Your task to perform on an android device: Find coffee shops on Maps Image 0: 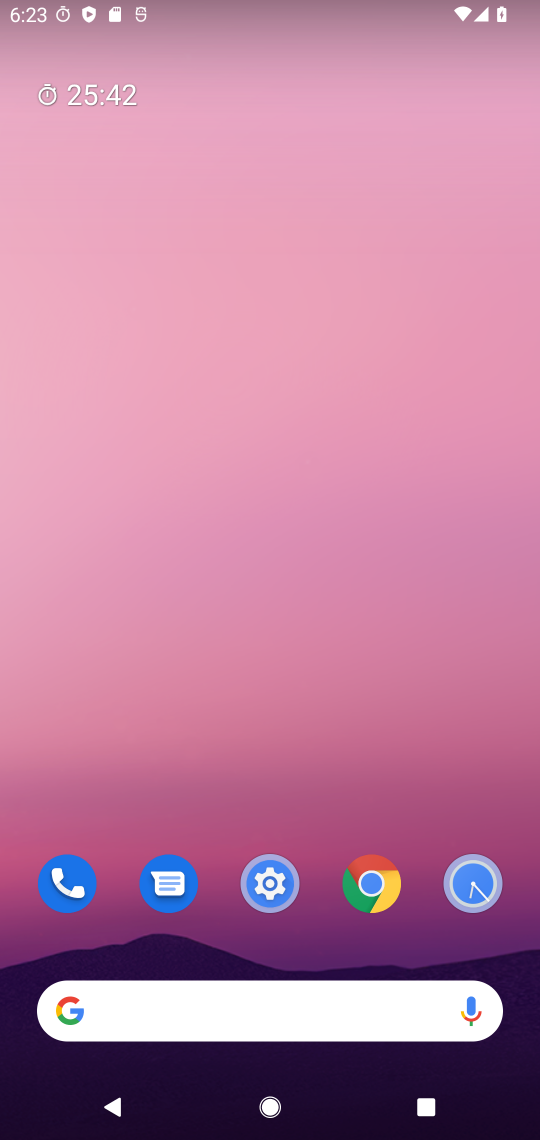
Step 0: drag from (254, 766) to (242, 206)
Your task to perform on an android device: Find coffee shops on Maps Image 1: 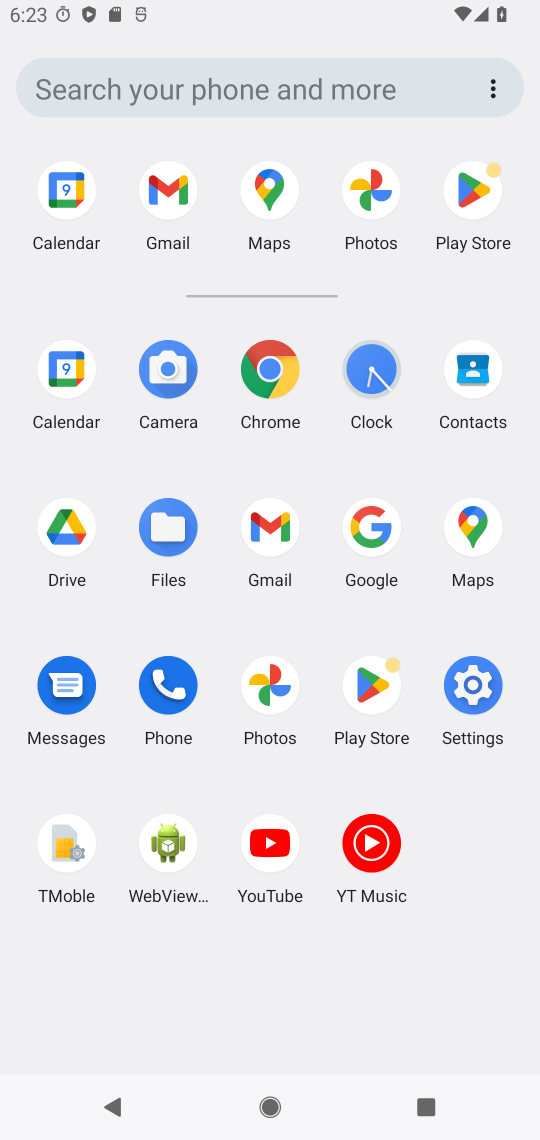
Step 1: click (279, 196)
Your task to perform on an android device: Find coffee shops on Maps Image 2: 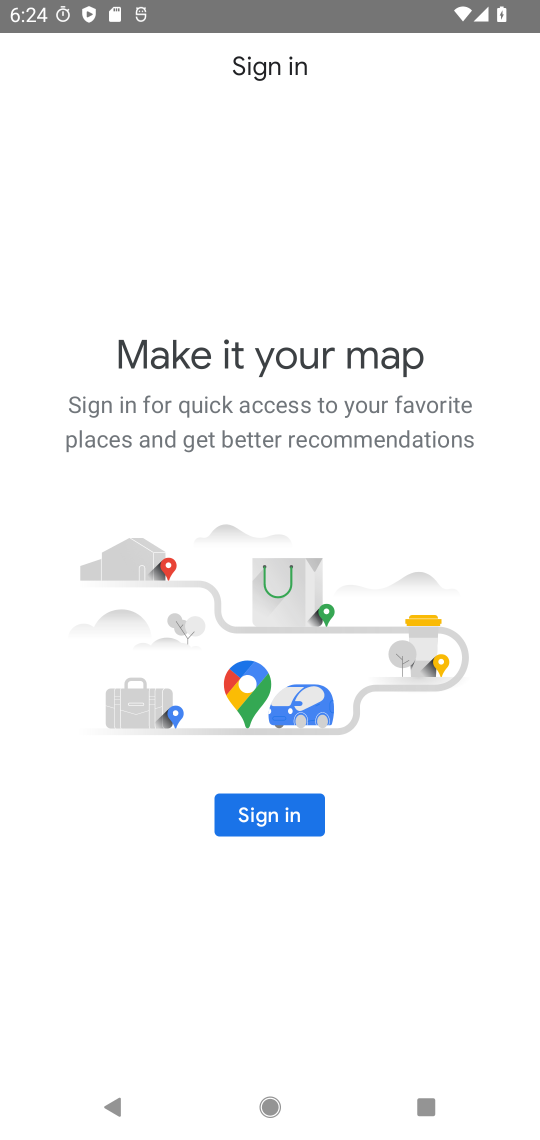
Step 2: press home button
Your task to perform on an android device: Find coffee shops on Maps Image 3: 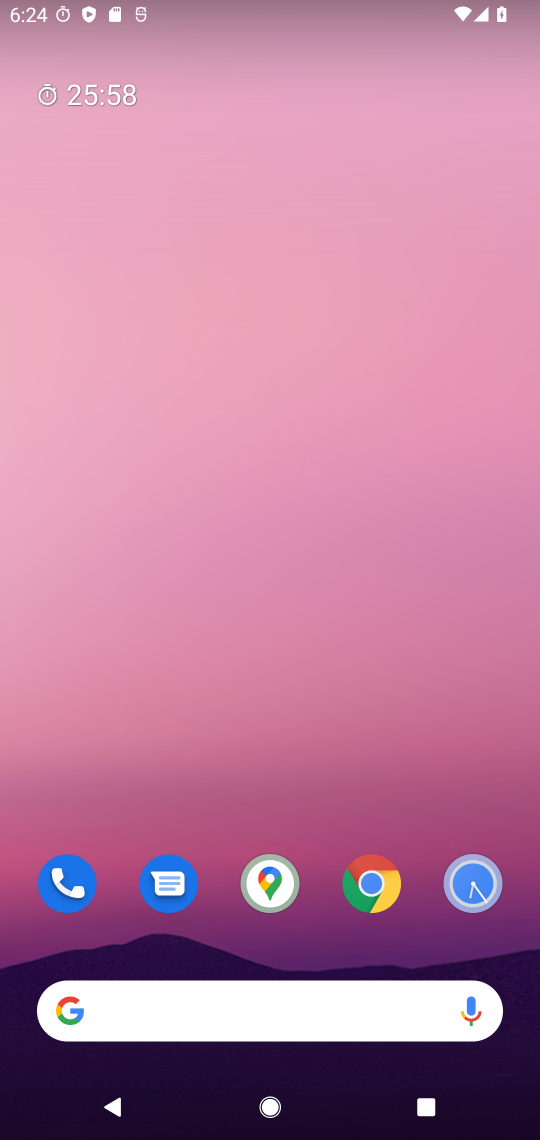
Step 3: click (283, 884)
Your task to perform on an android device: Find coffee shops on Maps Image 4: 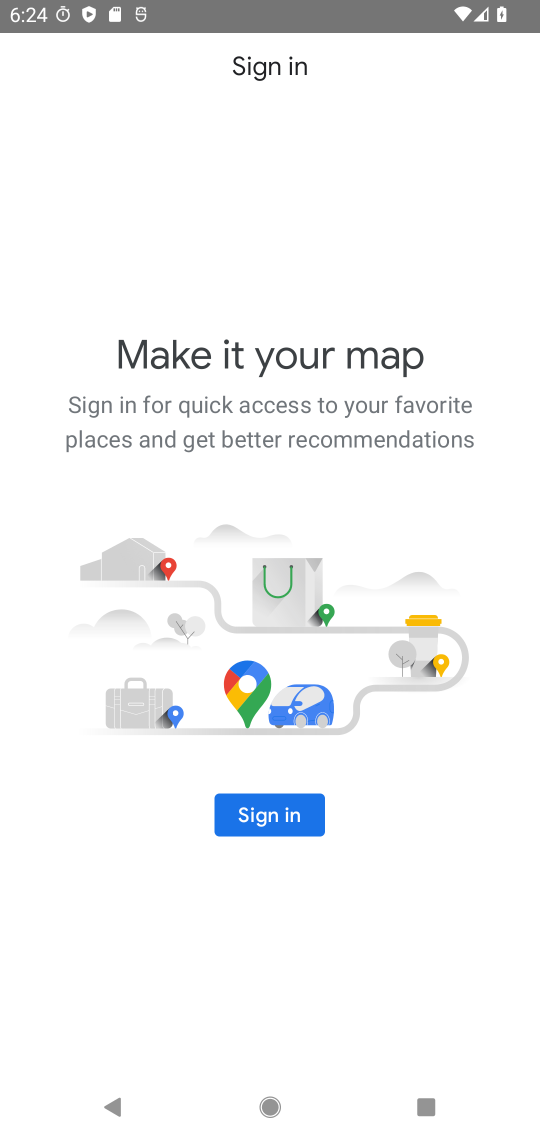
Step 4: task complete